Your task to perform on an android device: When is my next meeting? Image 0: 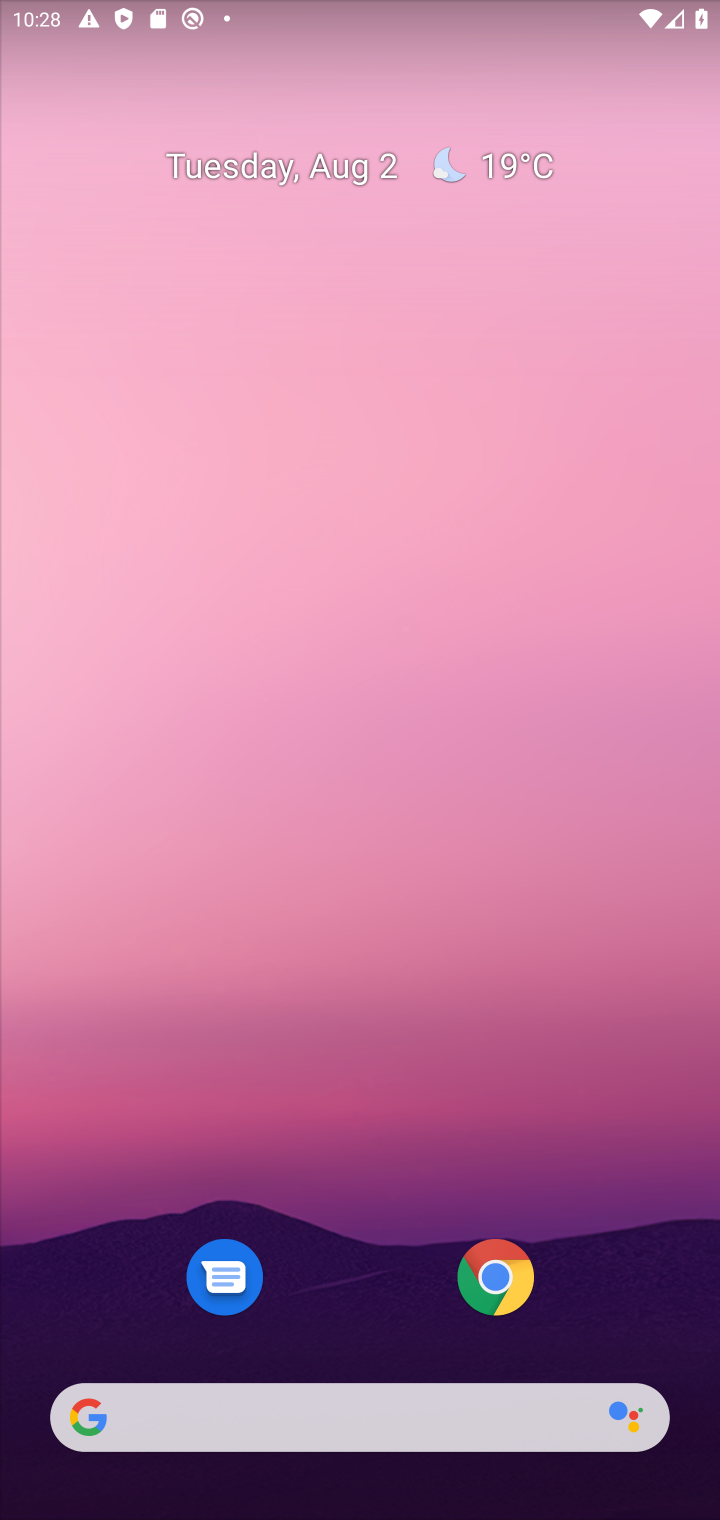
Step 0: press home button
Your task to perform on an android device: When is my next meeting? Image 1: 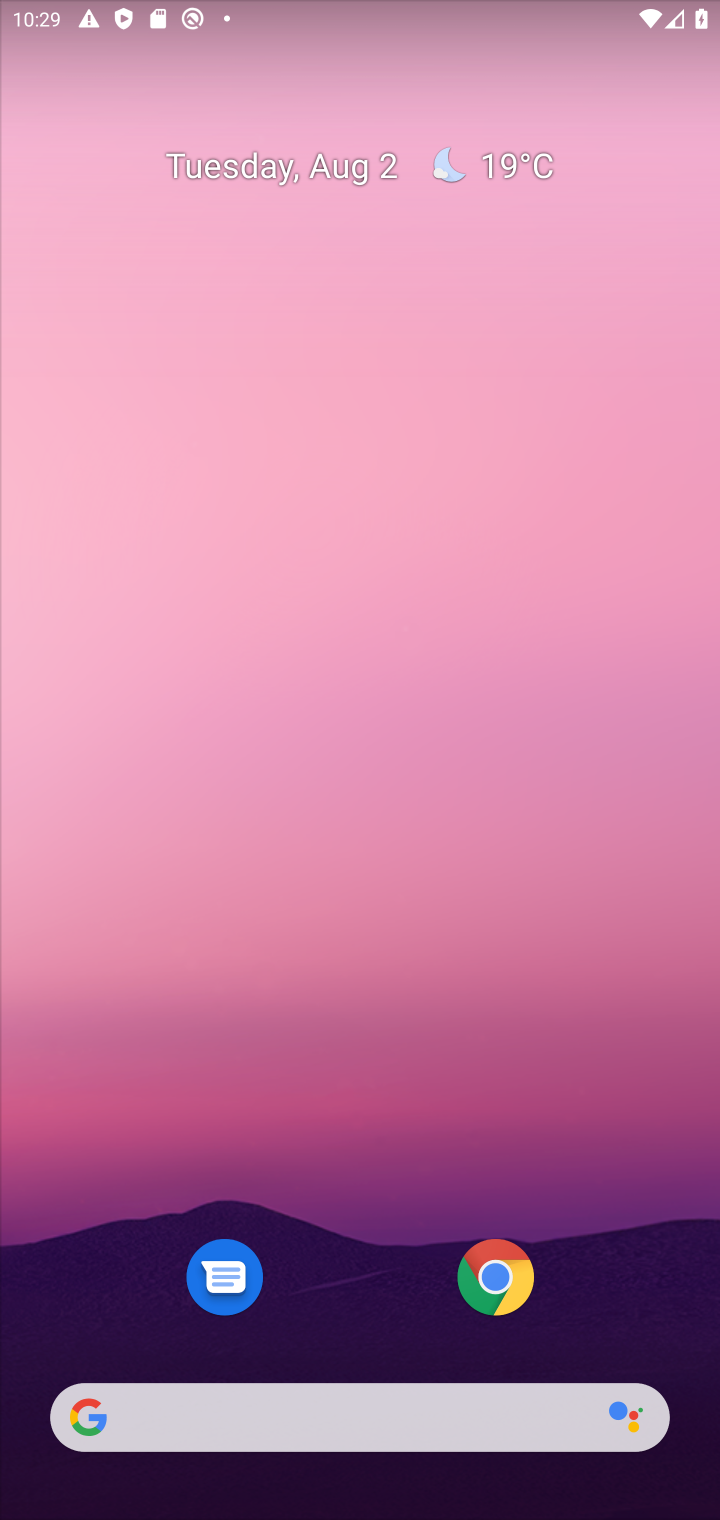
Step 1: drag from (486, 662) to (501, 313)
Your task to perform on an android device: When is my next meeting? Image 2: 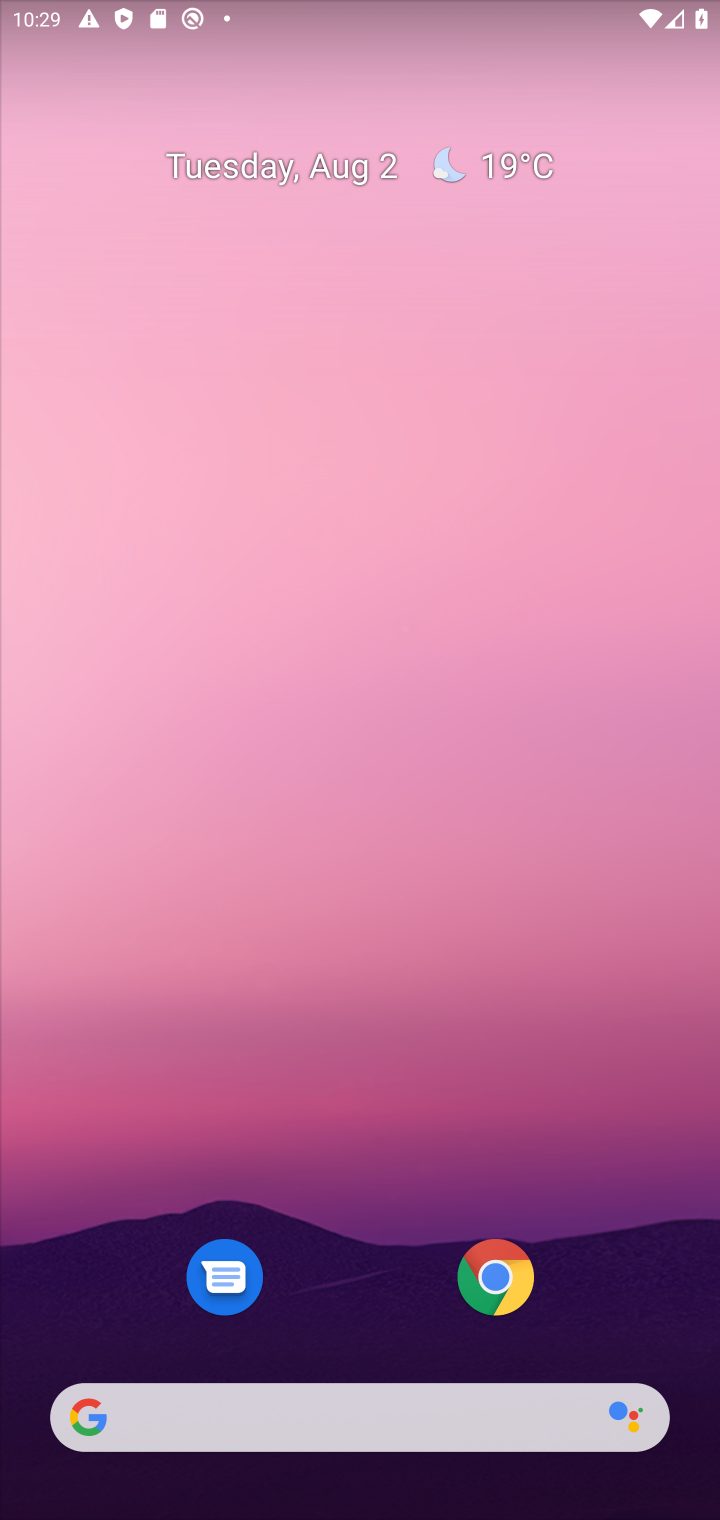
Step 2: drag from (378, 1259) to (658, 77)
Your task to perform on an android device: When is my next meeting? Image 3: 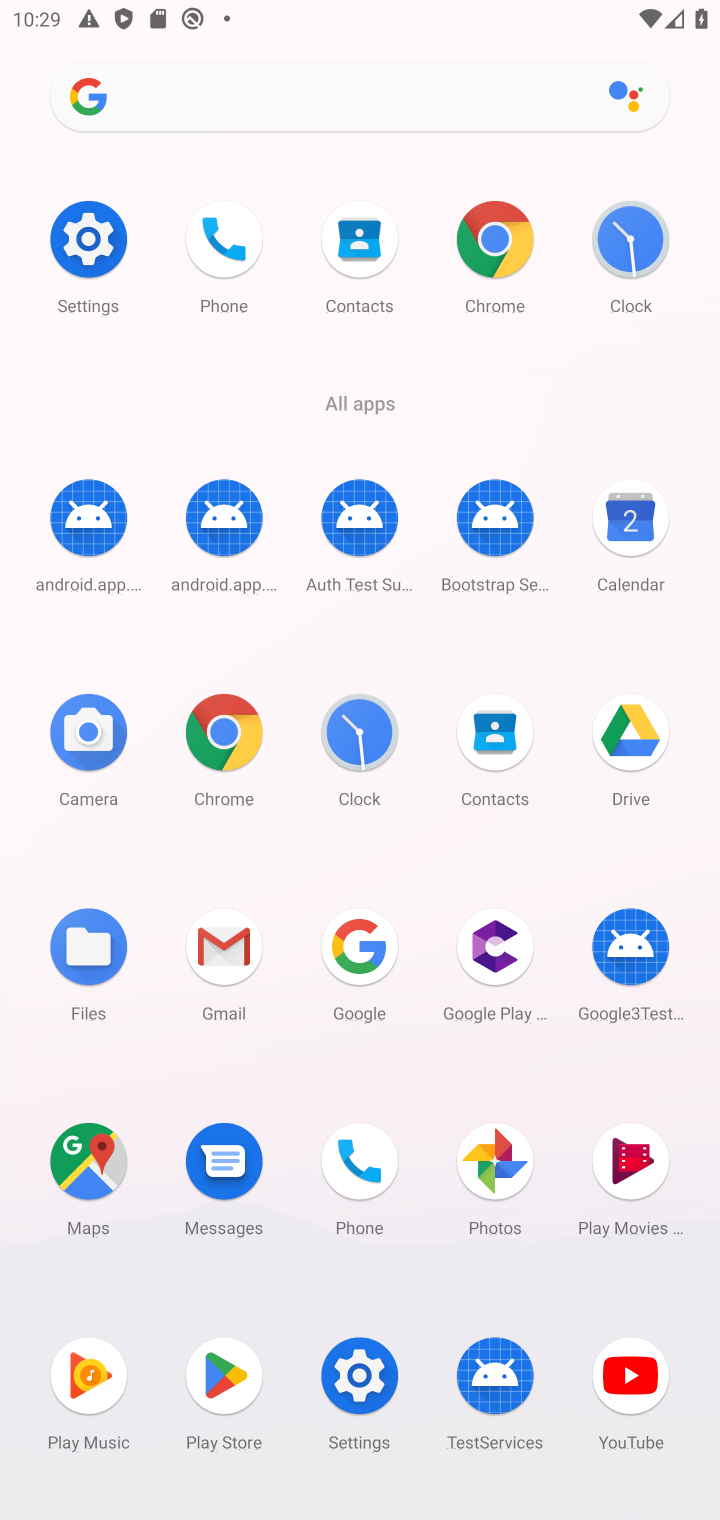
Step 3: click (627, 526)
Your task to perform on an android device: When is my next meeting? Image 4: 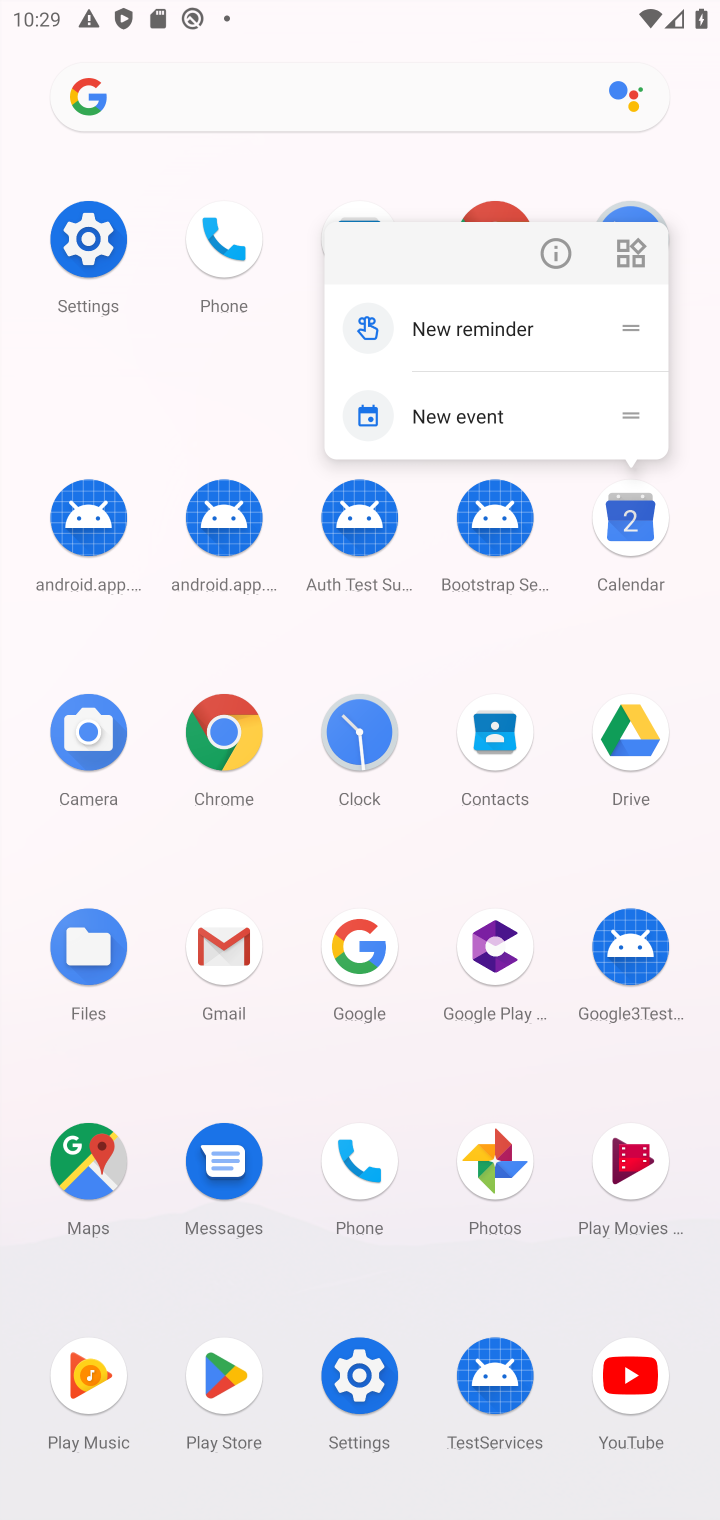
Step 4: click (627, 526)
Your task to perform on an android device: When is my next meeting? Image 5: 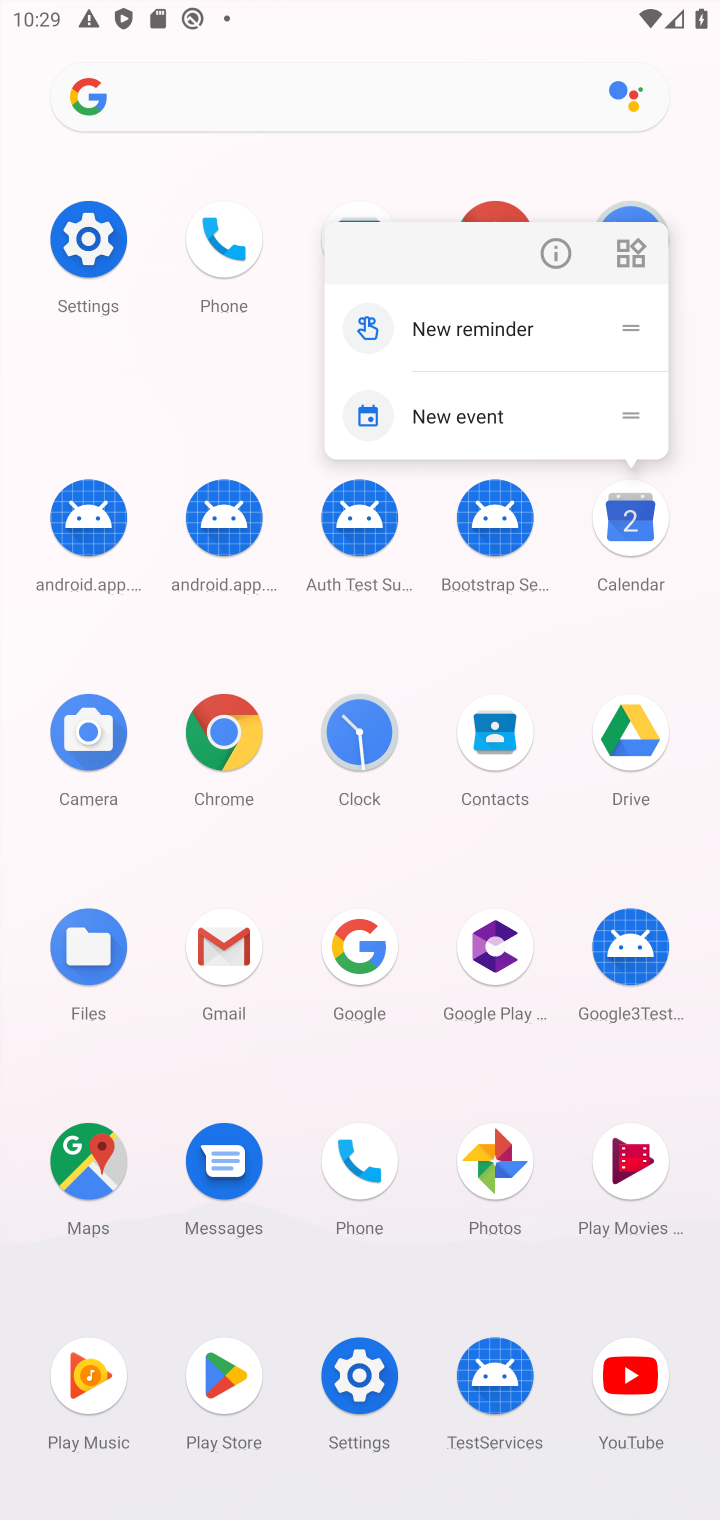
Step 5: click (649, 517)
Your task to perform on an android device: When is my next meeting? Image 6: 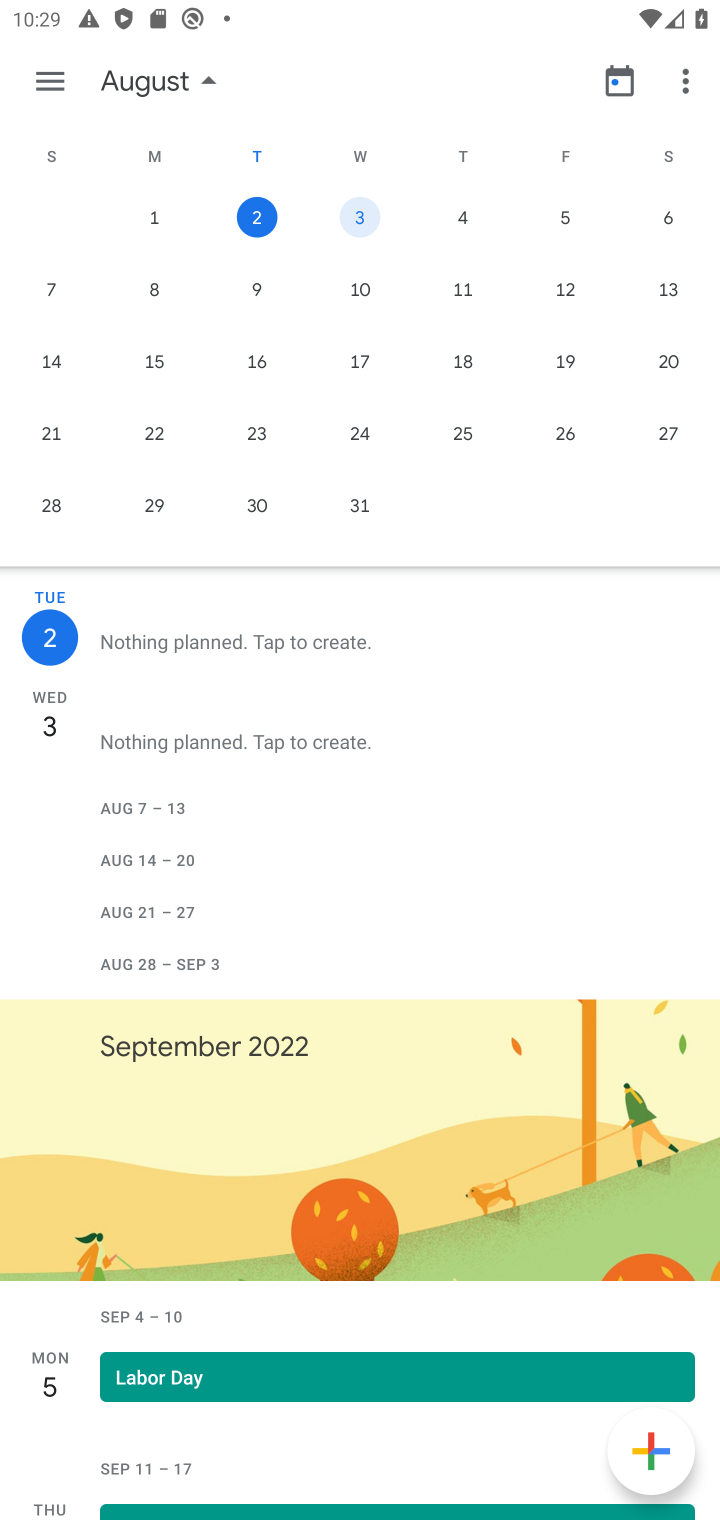
Step 6: click (50, 83)
Your task to perform on an android device: When is my next meeting? Image 7: 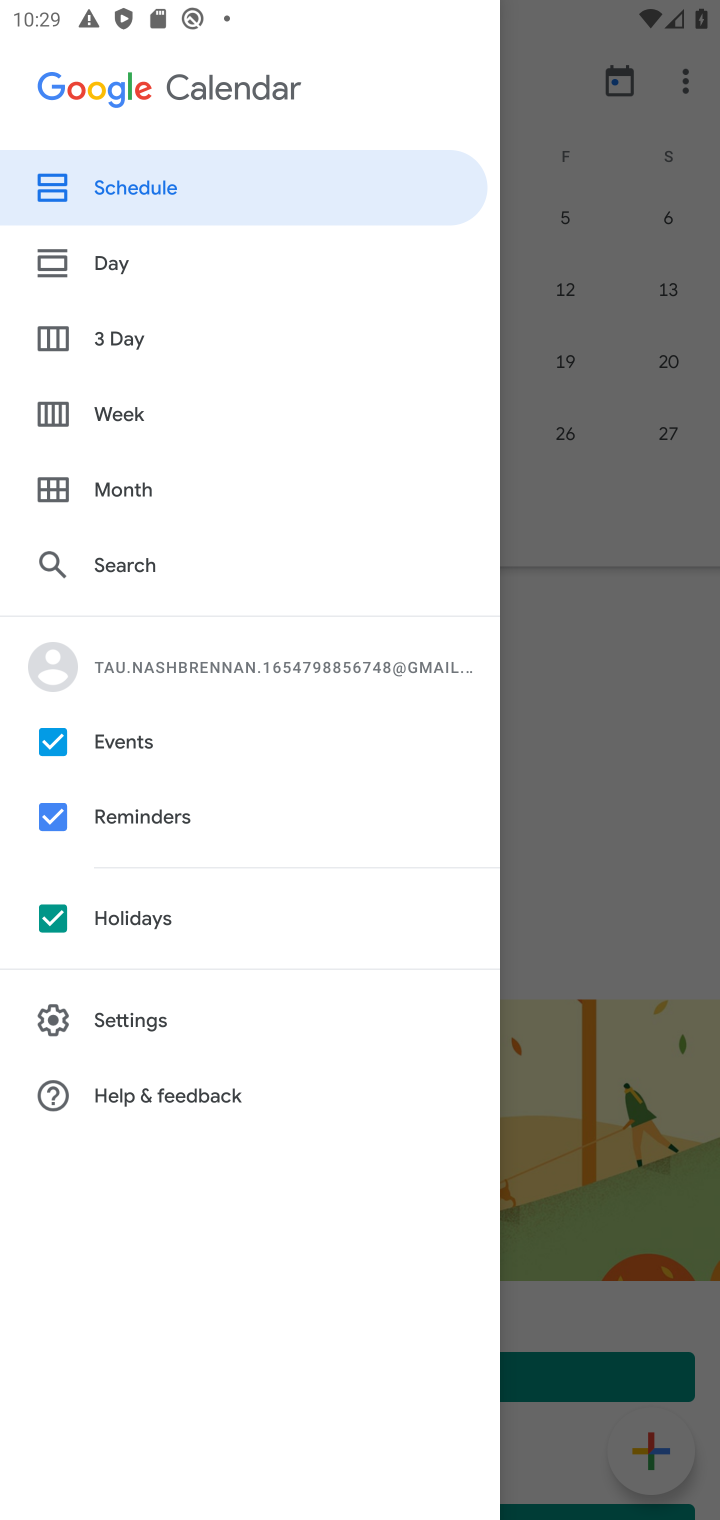
Step 7: click (135, 184)
Your task to perform on an android device: When is my next meeting? Image 8: 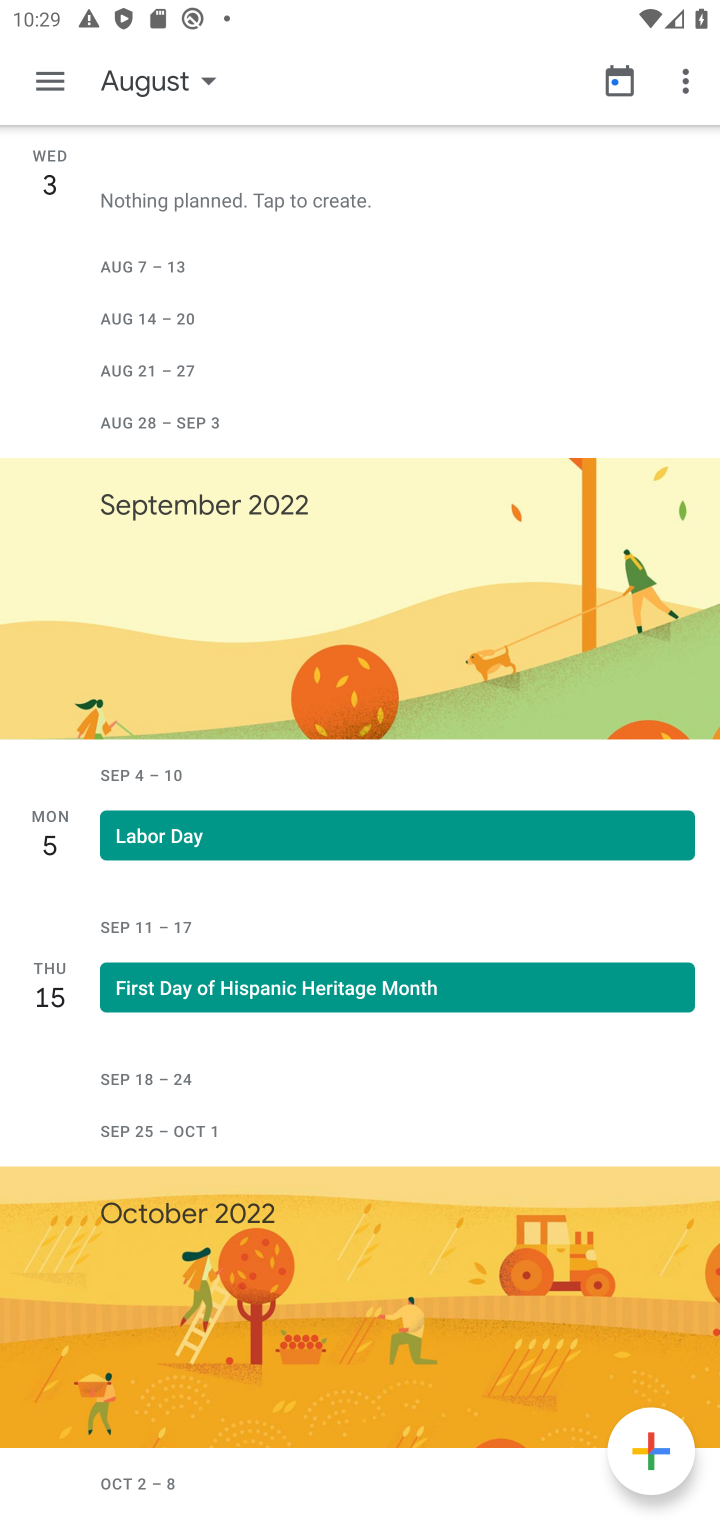
Step 8: task complete